Your task to perform on an android device: check the backup settings in the google photos Image 0: 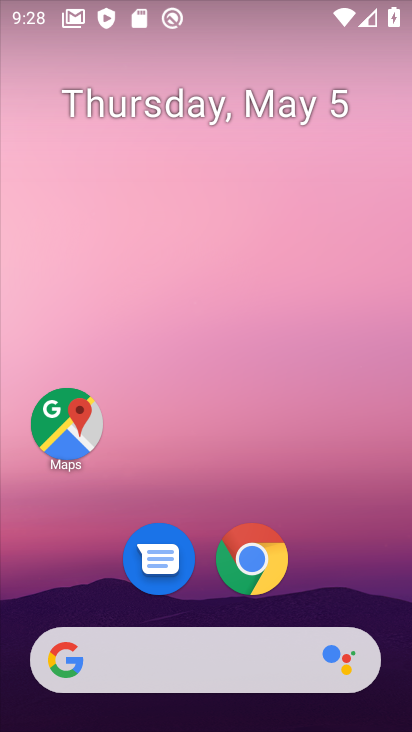
Step 0: drag from (17, 730) to (235, 233)
Your task to perform on an android device: check the backup settings in the google photos Image 1: 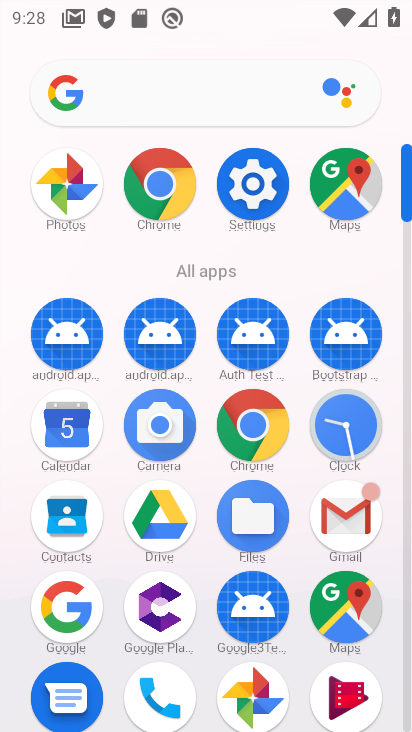
Step 1: click (264, 676)
Your task to perform on an android device: check the backup settings in the google photos Image 2: 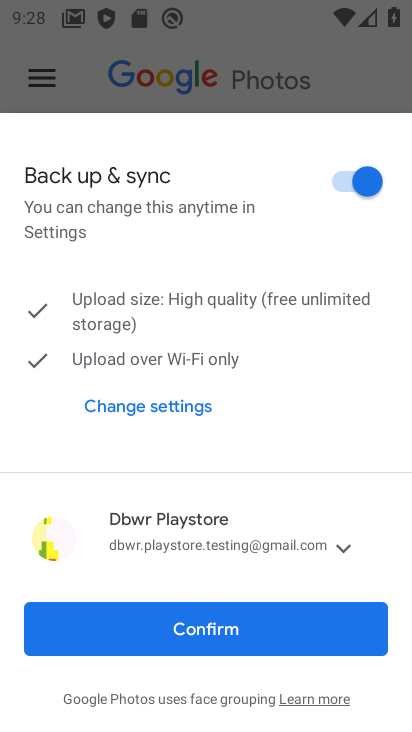
Step 2: click (207, 641)
Your task to perform on an android device: check the backup settings in the google photos Image 3: 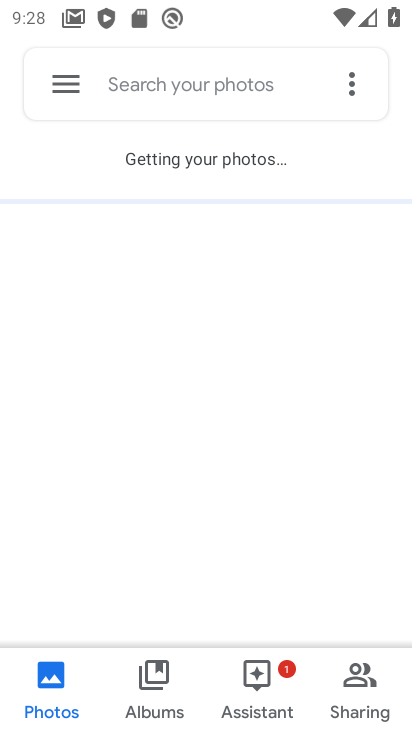
Step 3: click (62, 83)
Your task to perform on an android device: check the backup settings in the google photos Image 4: 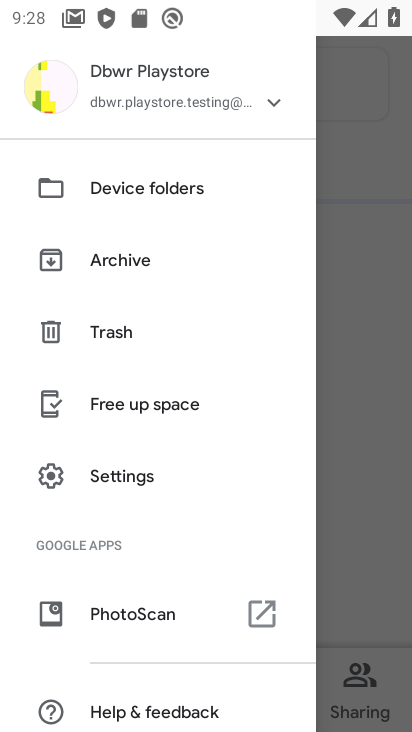
Step 4: drag from (142, 646) to (265, 203)
Your task to perform on an android device: check the backup settings in the google photos Image 5: 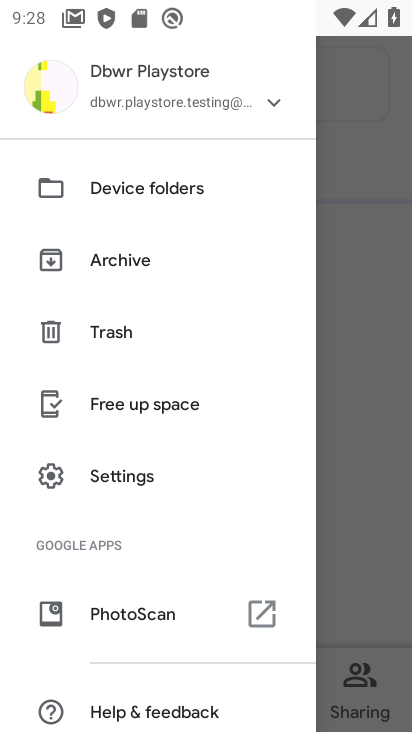
Step 5: drag from (77, 699) to (198, 258)
Your task to perform on an android device: check the backup settings in the google photos Image 6: 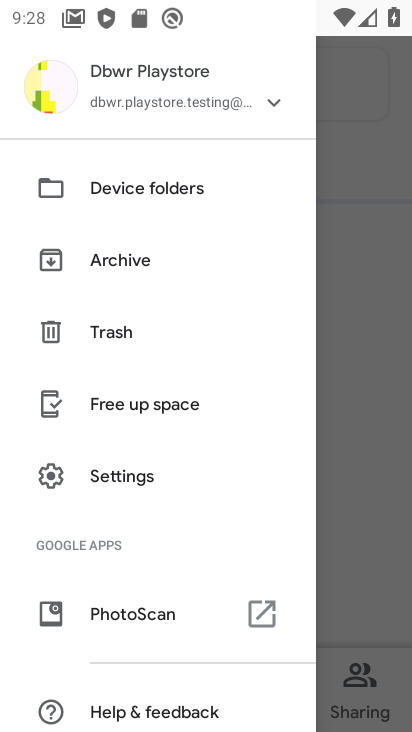
Step 6: click (120, 476)
Your task to perform on an android device: check the backup settings in the google photos Image 7: 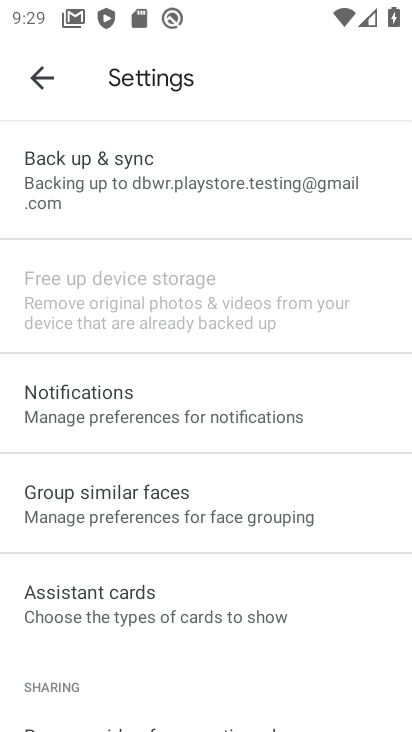
Step 7: click (119, 174)
Your task to perform on an android device: check the backup settings in the google photos Image 8: 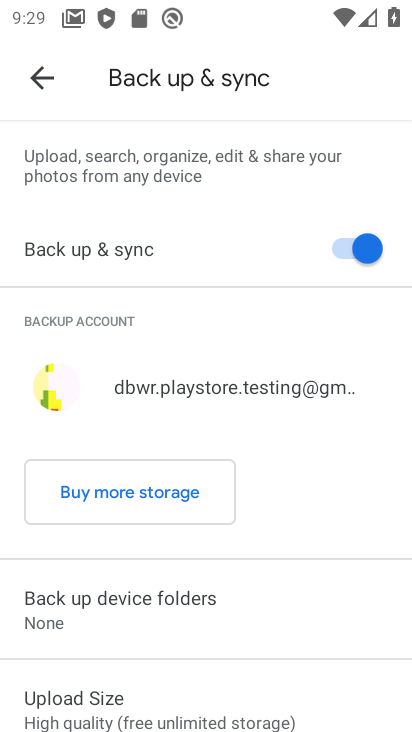
Step 8: task complete